Your task to perform on an android device: uninstall "Google Photos" Image 0: 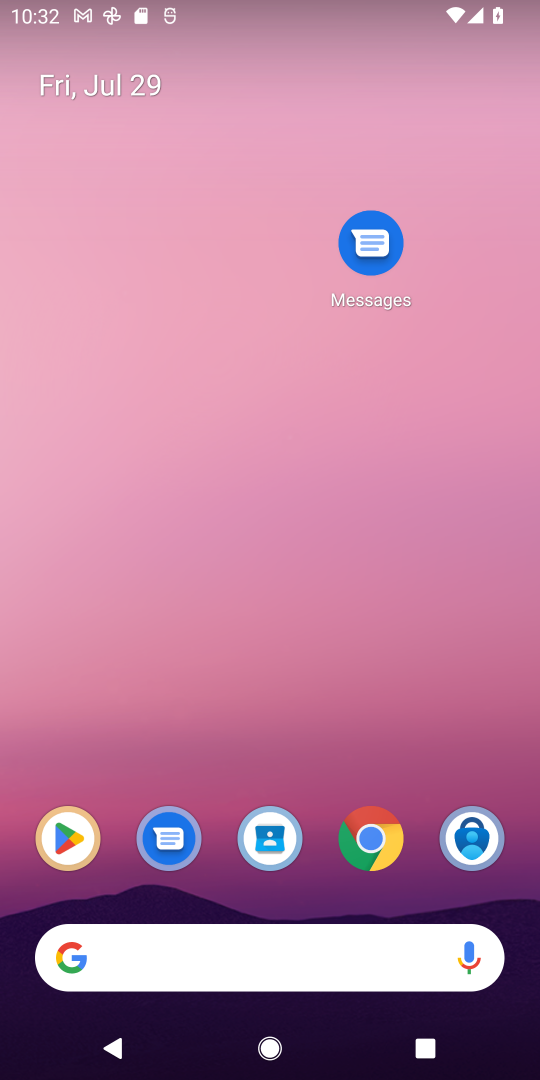
Step 0: click (69, 848)
Your task to perform on an android device: uninstall "Google Photos" Image 1: 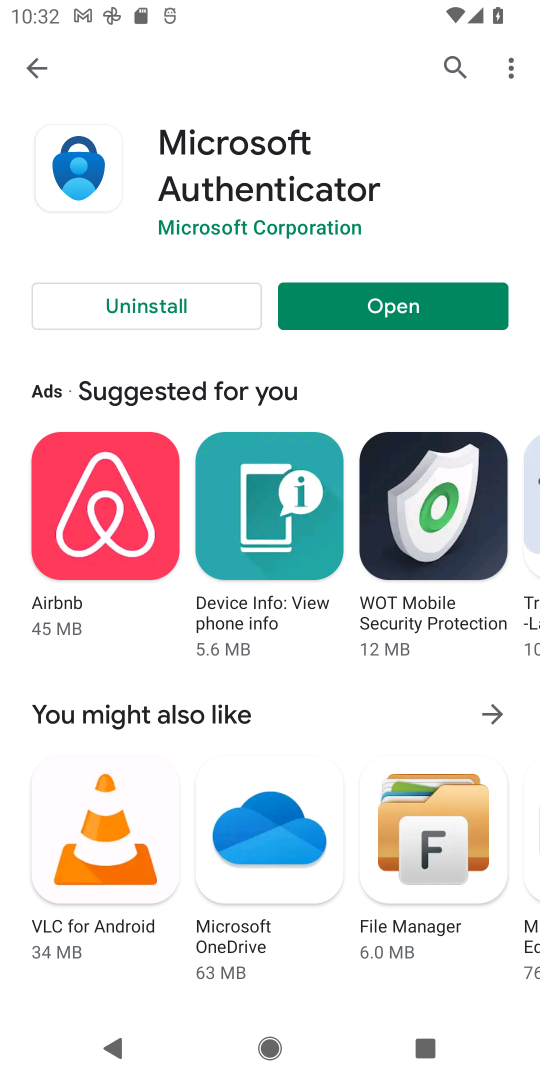
Step 1: click (32, 85)
Your task to perform on an android device: uninstall "Google Photos" Image 2: 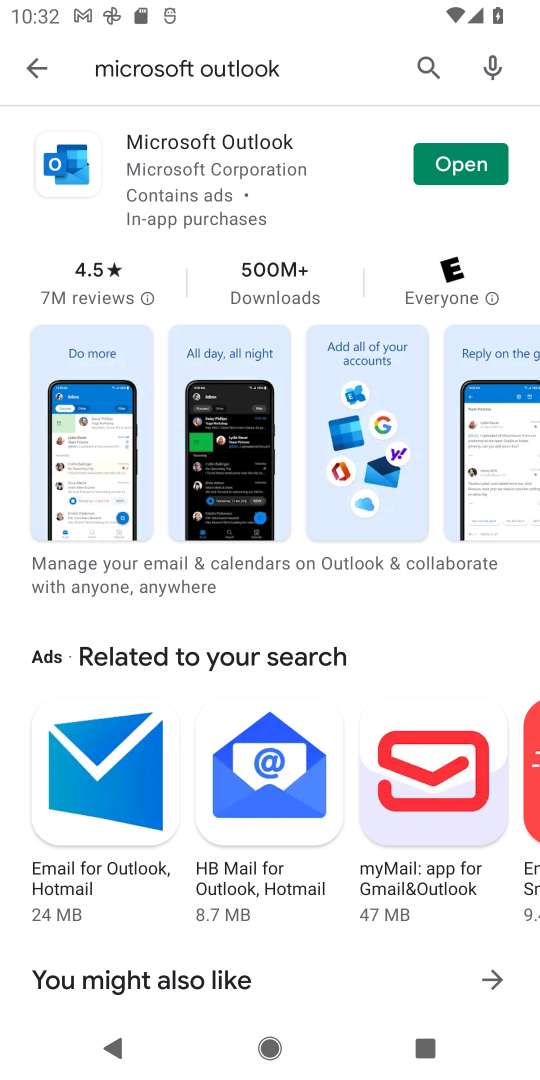
Step 2: click (208, 79)
Your task to perform on an android device: uninstall "Google Photos" Image 3: 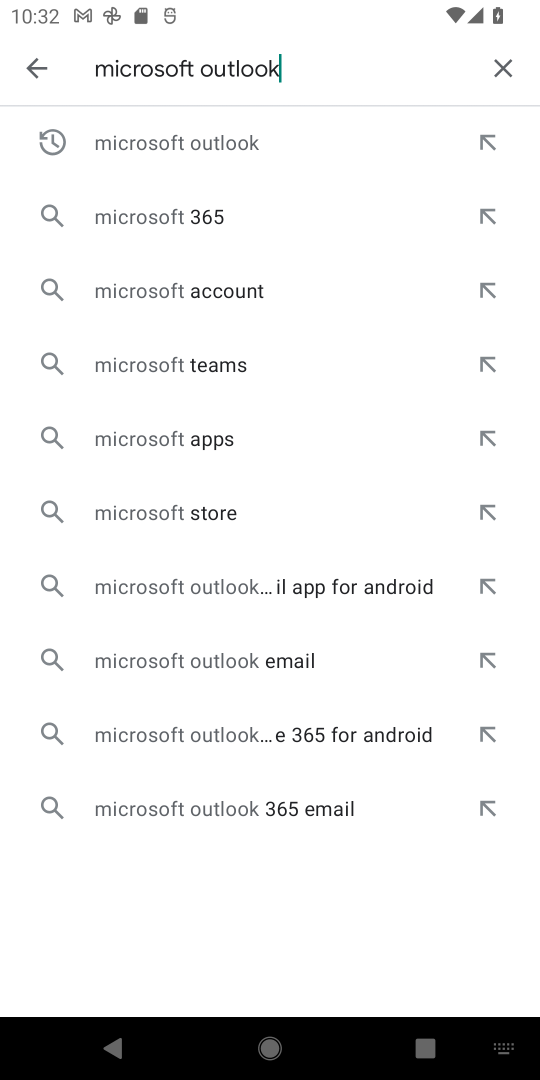
Step 3: click (494, 70)
Your task to perform on an android device: uninstall "Google Photos" Image 4: 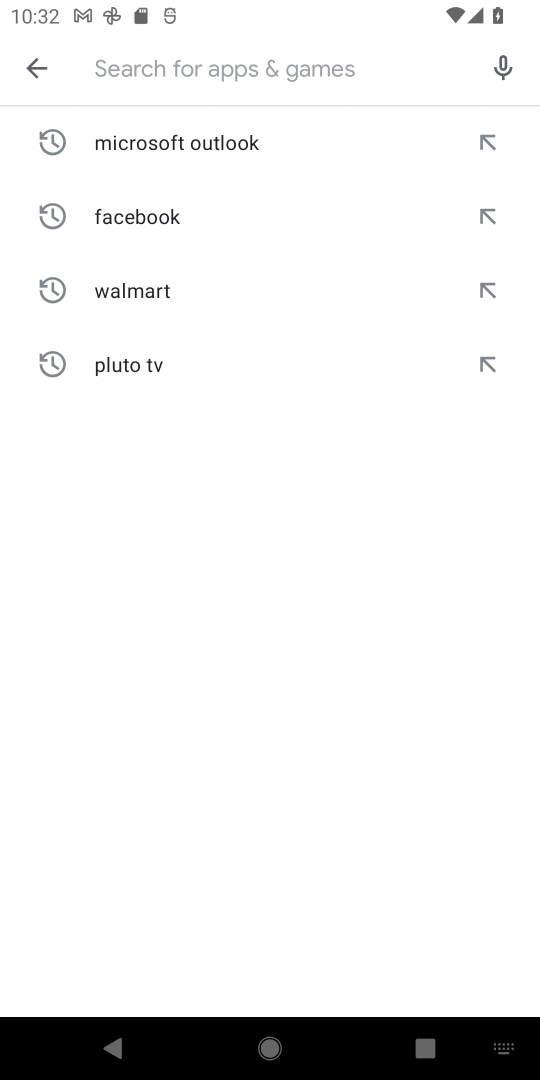
Step 4: type "google Photos"
Your task to perform on an android device: uninstall "Google Photos" Image 5: 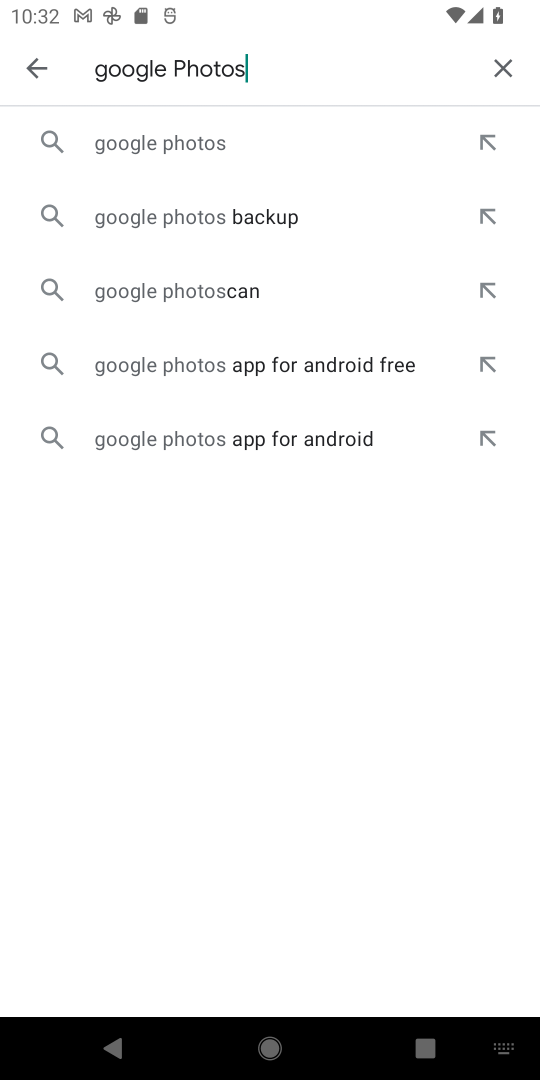
Step 5: click (136, 149)
Your task to perform on an android device: uninstall "Google Photos" Image 6: 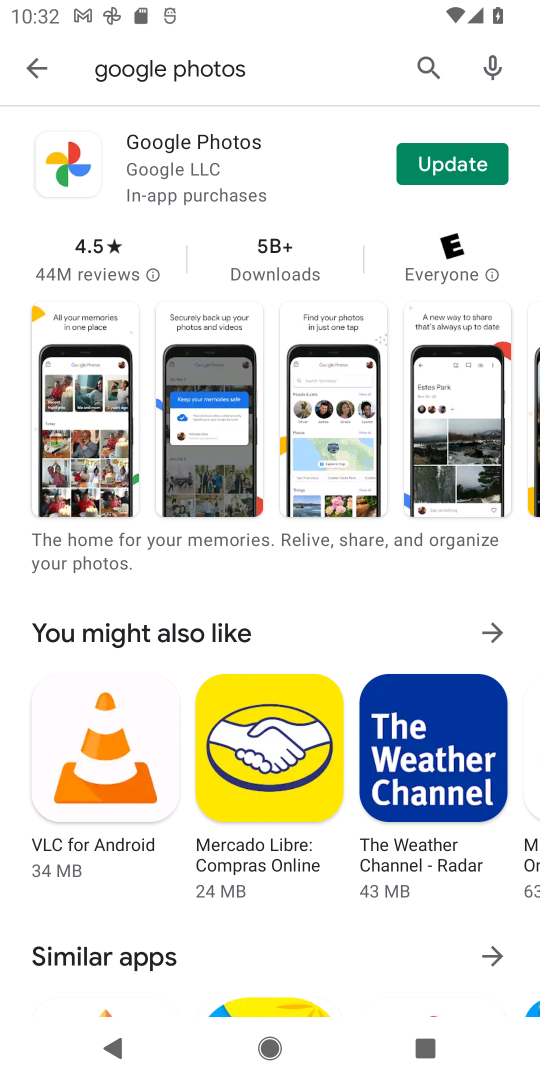
Step 6: click (179, 179)
Your task to perform on an android device: uninstall "Google Photos" Image 7: 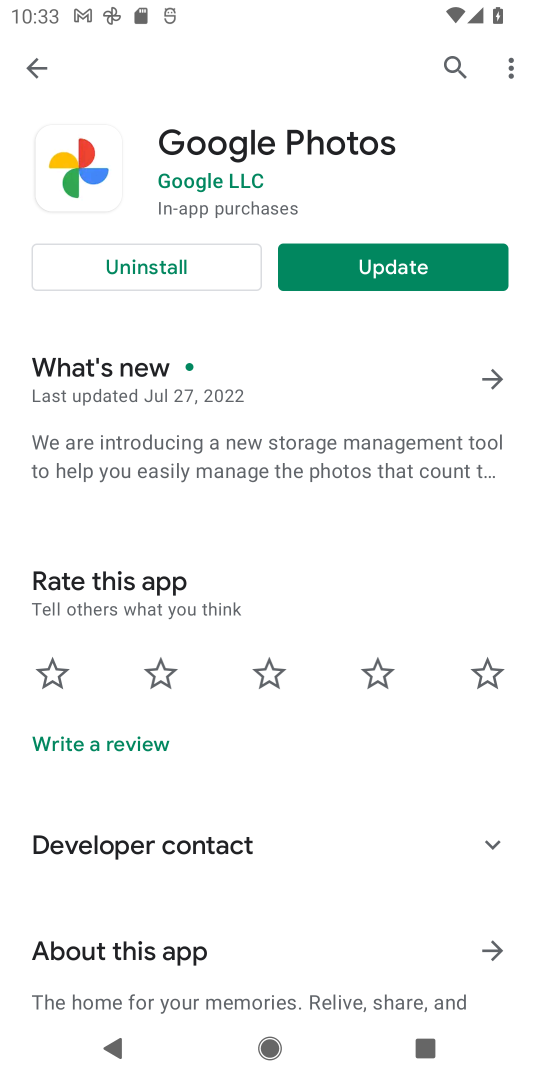
Step 7: click (191, 270)
Your task to perform on an android device: uninstall "Google Photos" Image 8: 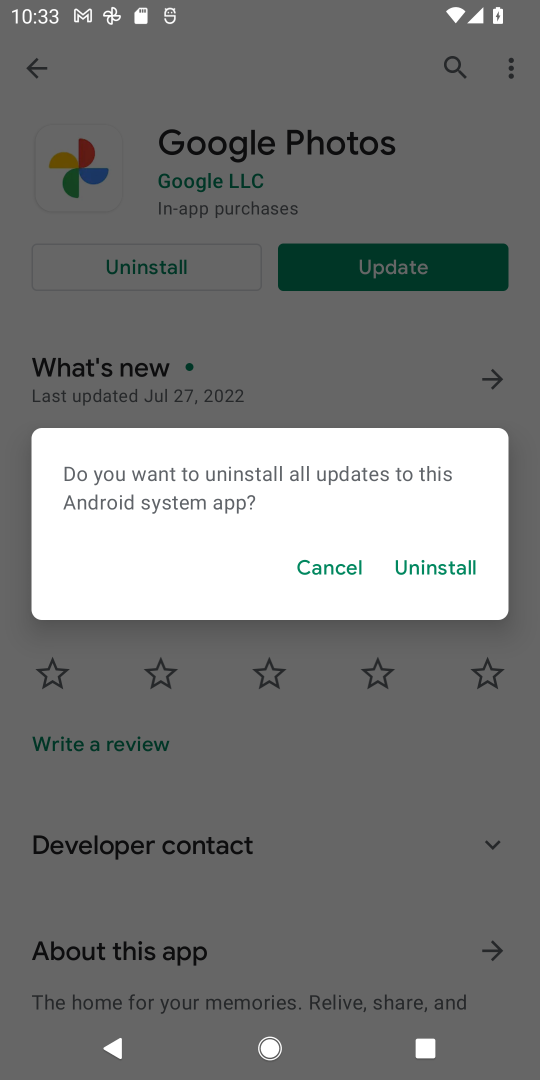
Step 8: click (428, 558)
Your task to perform on an android device: uninstall "Google Photos" Image 9: 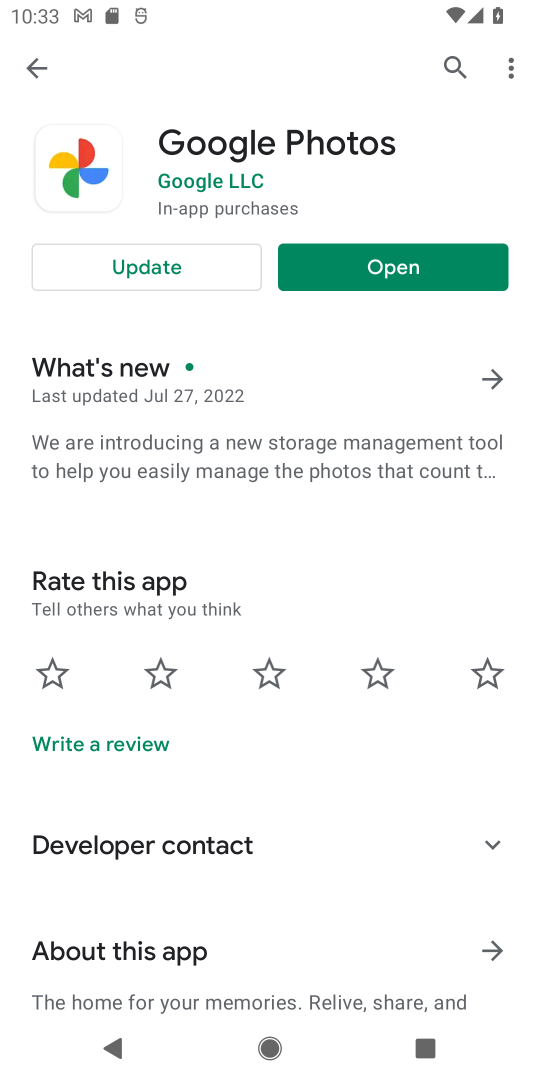
Step 9: task complete